Your task to perform on an android device: Open eBay Image 0: 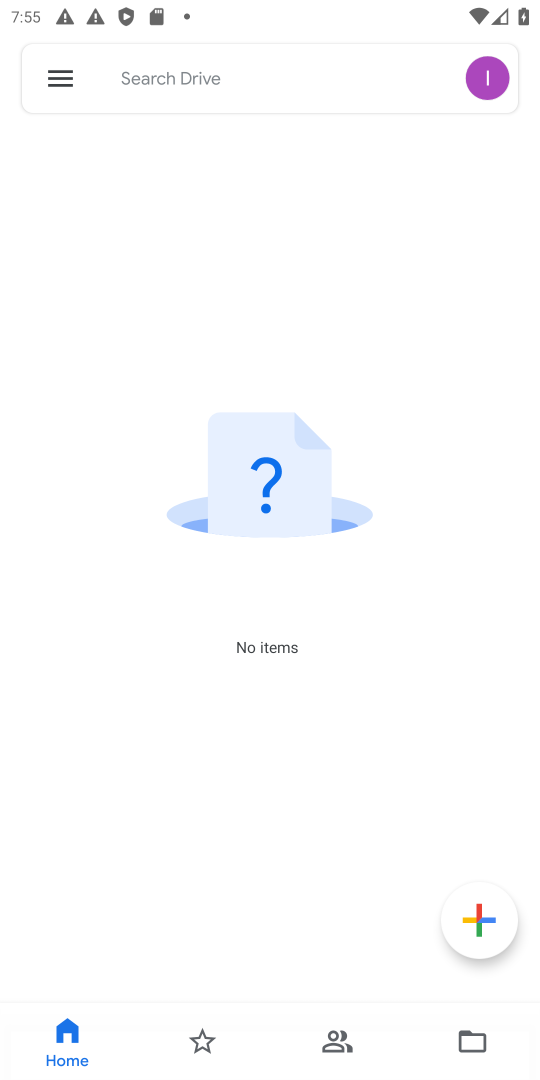
Step 0: press home button
Your task to perform on an android device: Open eBay Image 1: 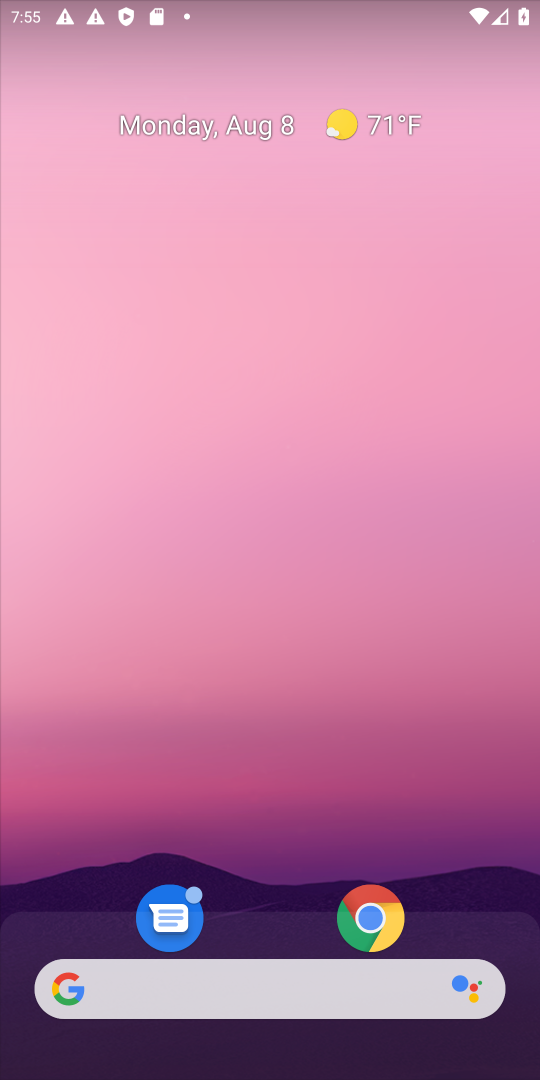
Step 1: click (368, 925)
Your task to perform on an android device: Open eBay Image 2: 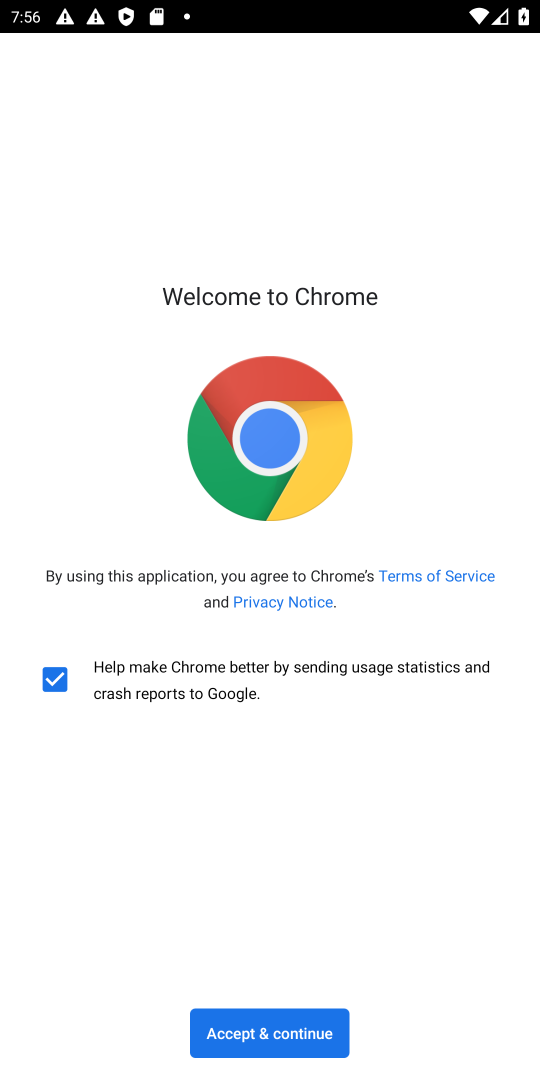
Step 2: click (299, 1017)
Your task to perform on an android device: Open eBay Image 3: 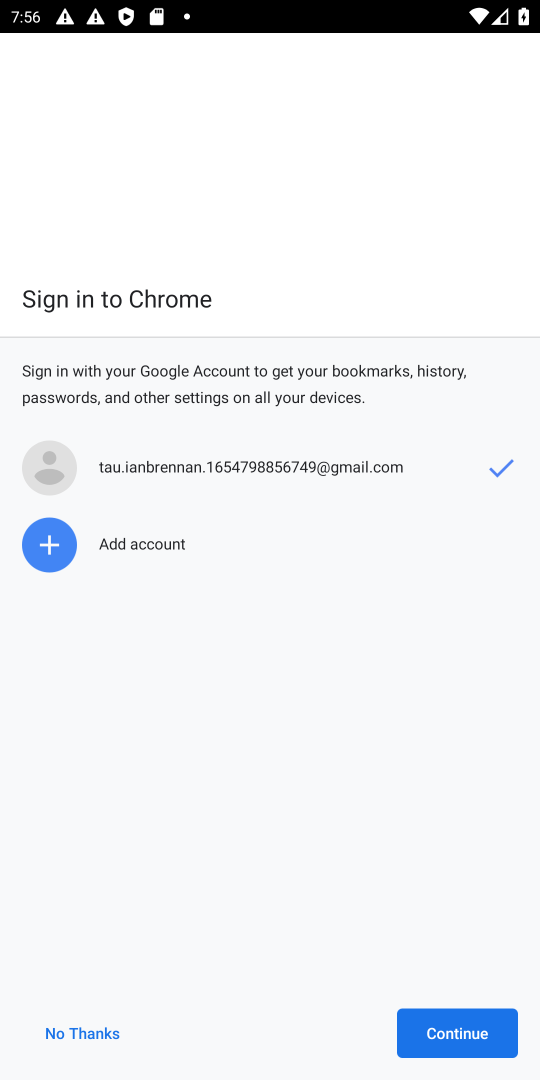
Step 3: click (423, 1039)
Your task to perform on an android device: Open eBay Image 4: 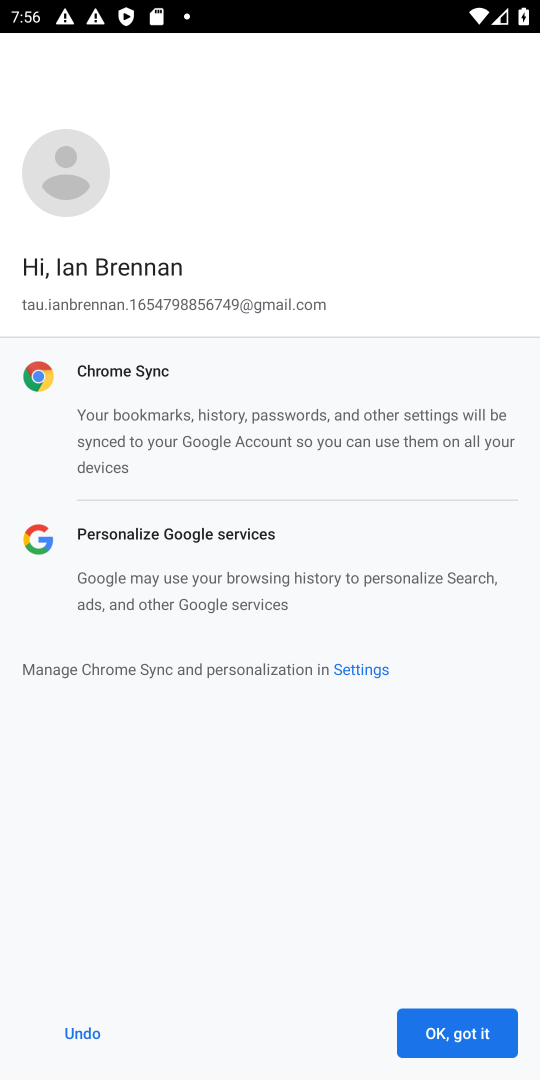
Step 4: click (423, 1039)
Your task to perform on an android device: Open eBay Image 5: 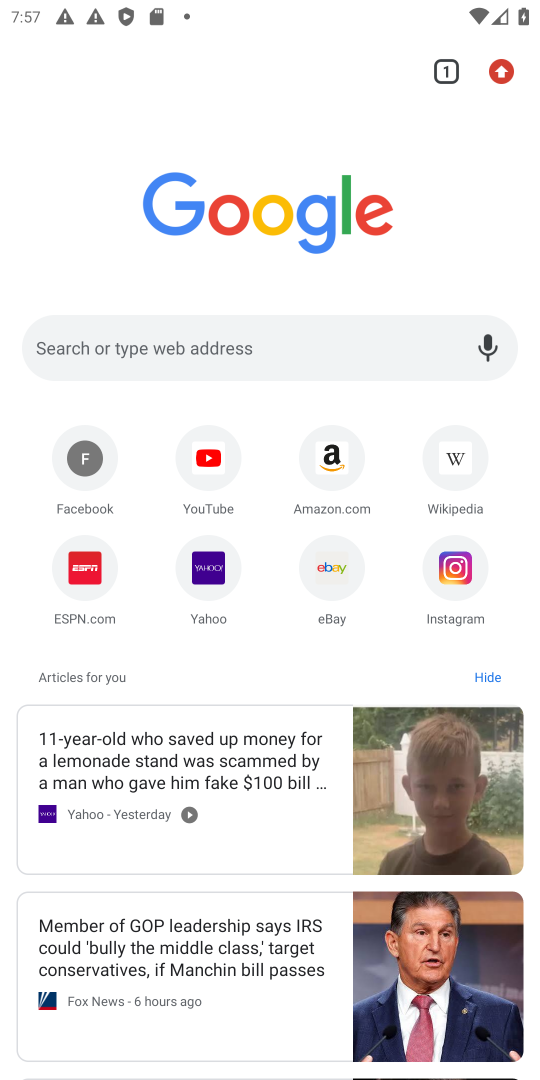
Step 5: click (245, 344)
Your task to perform on an android device: Open eBay Image 6: 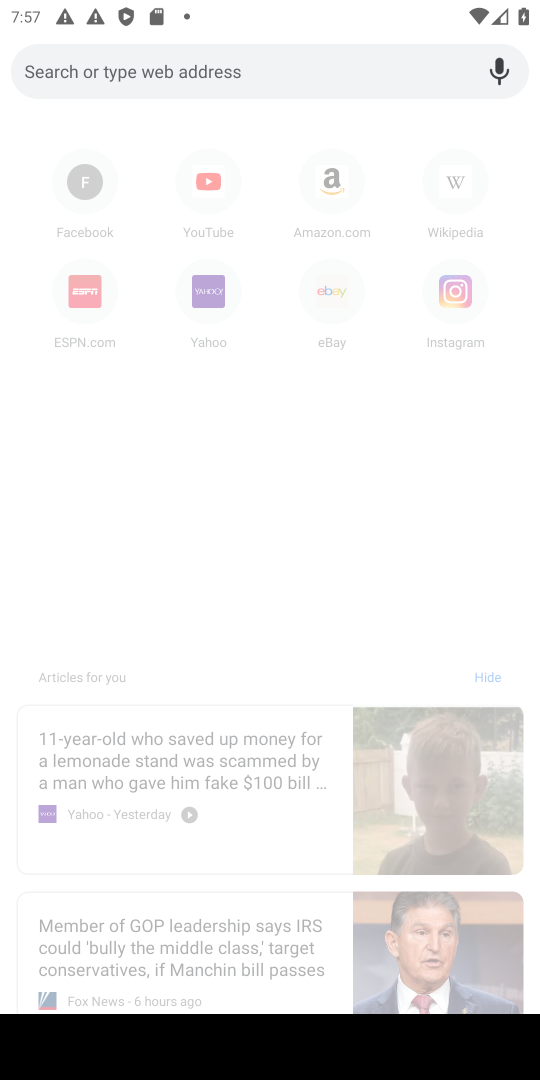
Step 6: type "eBay"
Your task to perform on an android device: Open eBay Image 7: 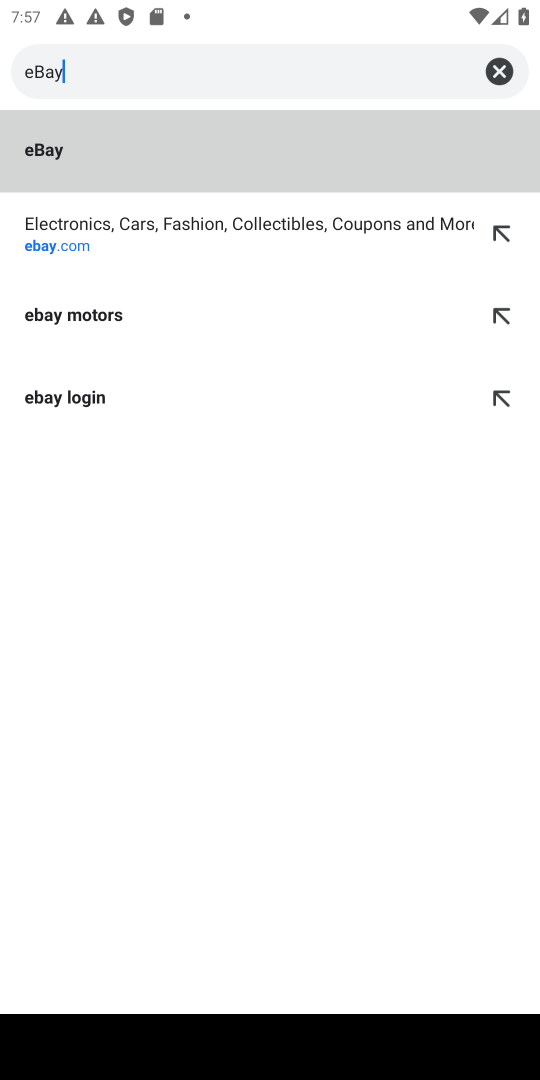
Step 7: click (73, 164)
Your task to perform on an android device: Open eBay Image 8: 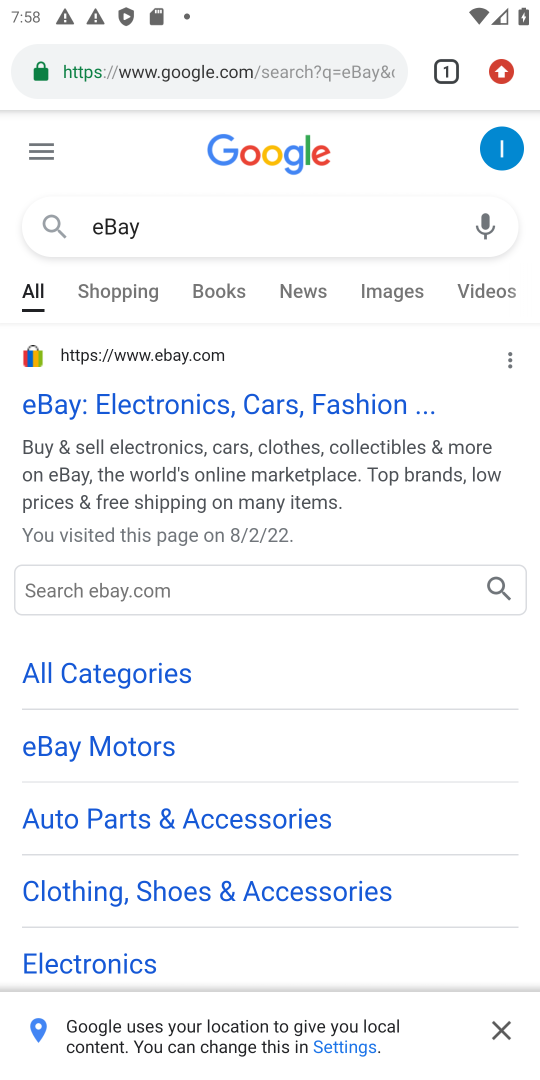
Step 8: task complete